Your task to perform on an android device: Open the Play Movies app and select the watchlist tab. Image 0: 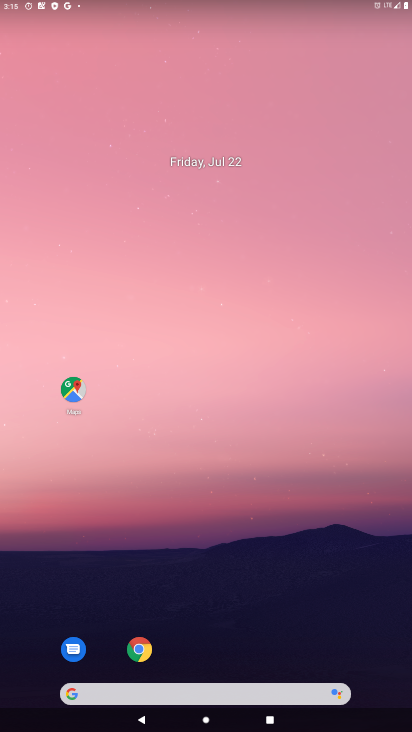
Step 0: drag from (309, 615) to (296, 71)
Your task to perform on an android device: Open the Play Movies app and select the watchlist tab. Image 1: 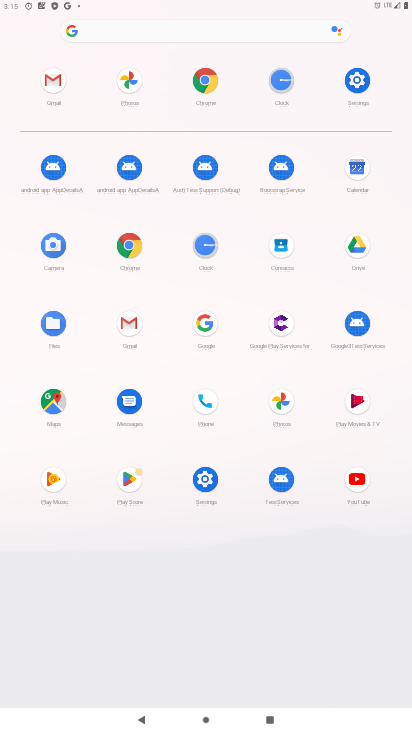
Step 1: click (359, 395)
Your task to perform on an android device: Open the Play Movies app and select the watchlist tab. Image 2: 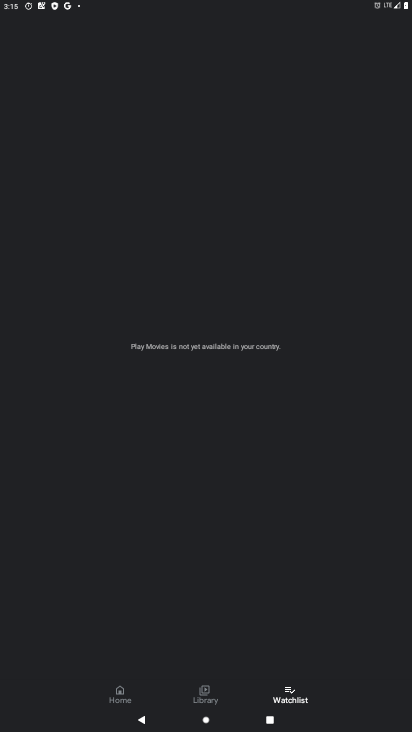
Step 2: click (300, 696)
Your task to perform on an android device: Open the Play Movies app and select the watchlist tab. Image 3: 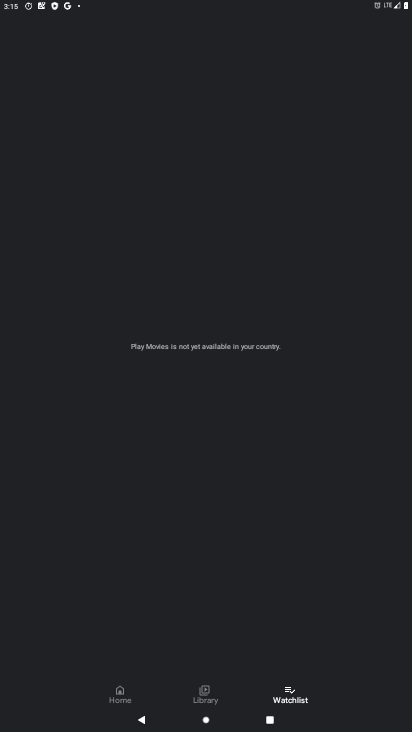
Step 3: task complete